Your task to perform on an android device: Open Chrome and go to the settings page Image 0: 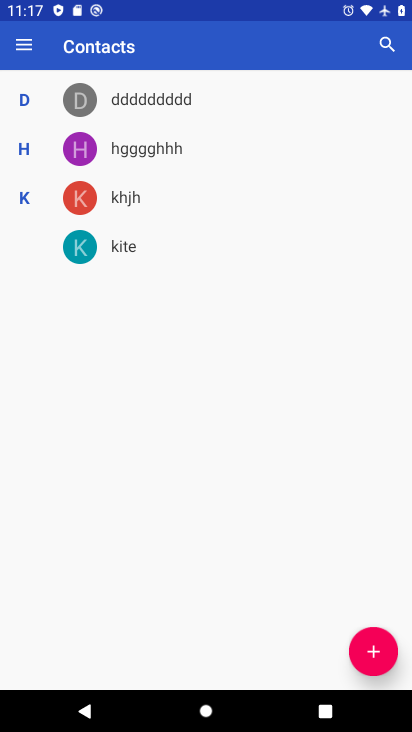
Step 0: press home button
Your task to perform on an android device: Open Chrome and go to the settings page Image 1: 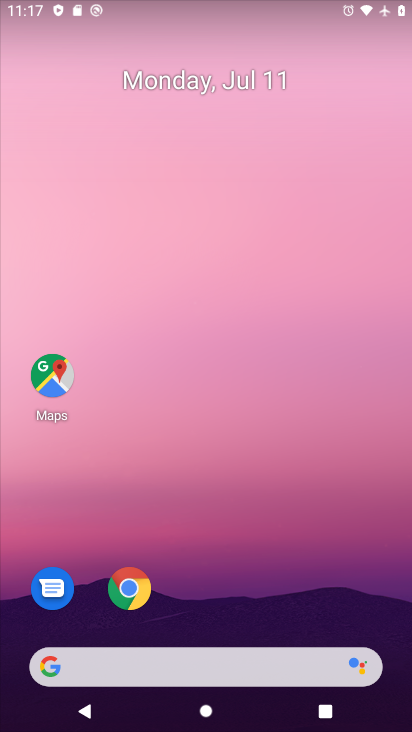
Step 1: click (137, 593)
Your task to perform on an android device: Open Chrome and go to the settings page Image 2: 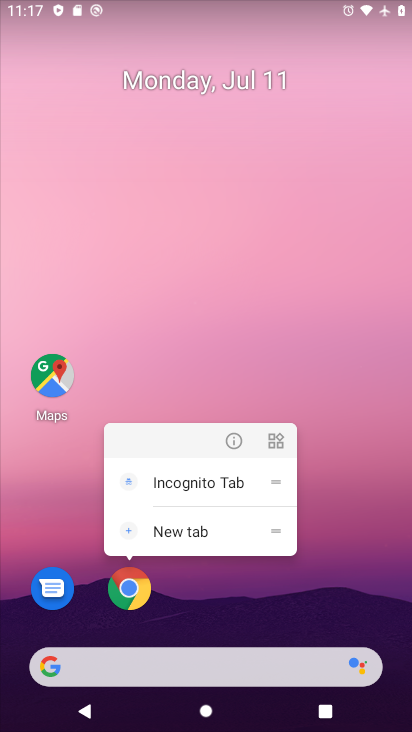
Step 2: click (123, 593)
Your task to perform on an android device: Open Chrome and go to the settings page Image 3: 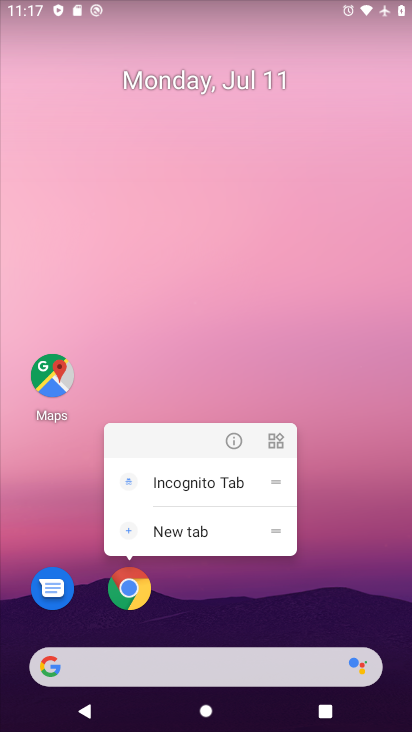
Step 3: click (122, 595)
Your task to perform on an android device: Open Chrome and go to the settings page Image 4: 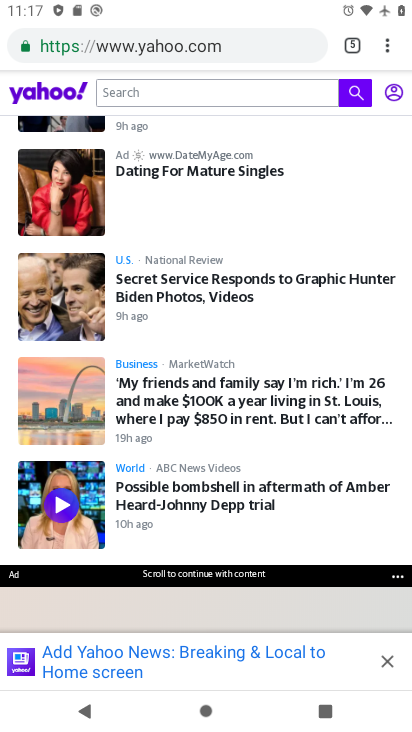
Step 4: task complete